Your task to perform on an android device: Open Android settings Image 0: 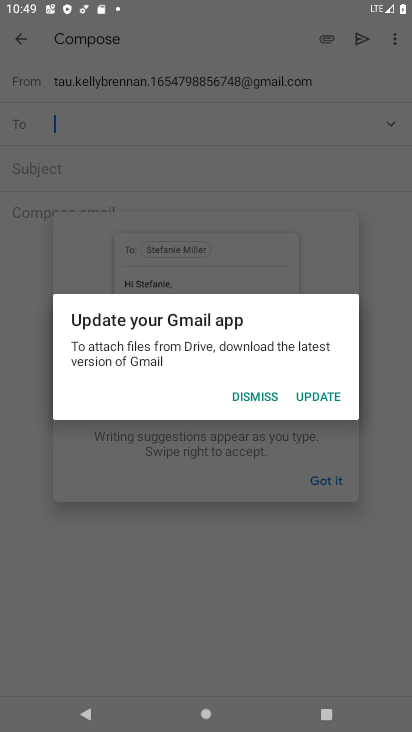
Step 0: press home button
Your task to perform on an android device: Open Android settings Image 1: 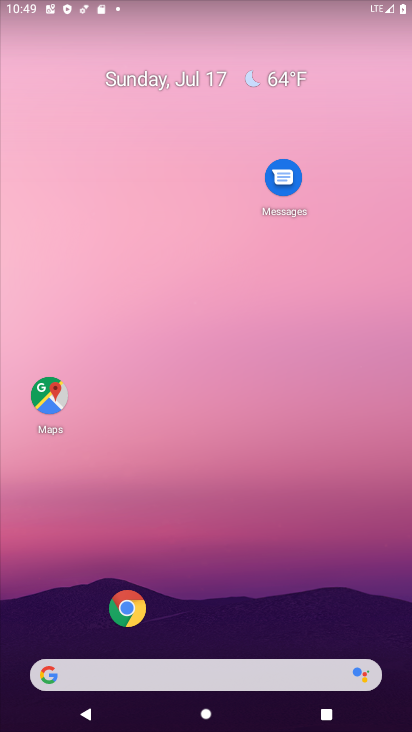
Step 1: drag from (50, 683) to (310, 148)
Your task to perform on an android device: Open Android settings Image 2: 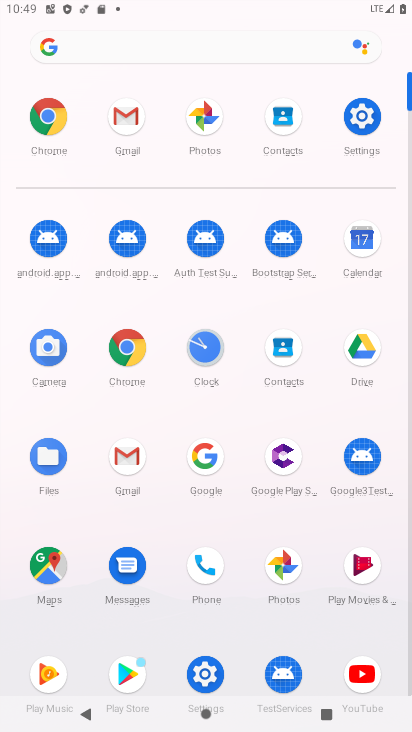
Step 2: click (212, 682)
Your task to perform on an android device: Open Android settings Image 3: 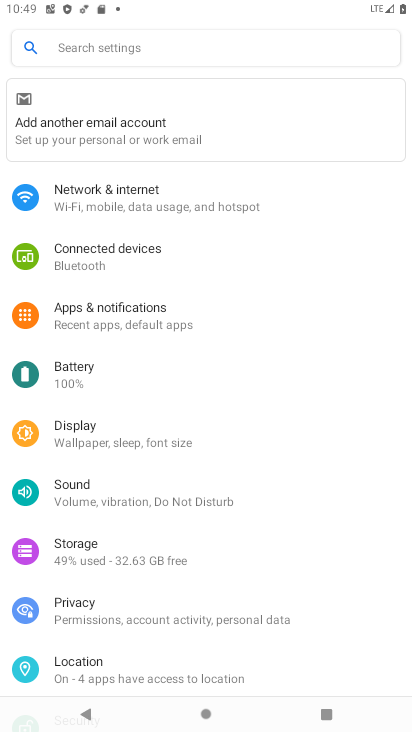
Step 3: drag from (337, 633) to (390, 186)
Your task to perform on an android device: Open Android settings Image 4: 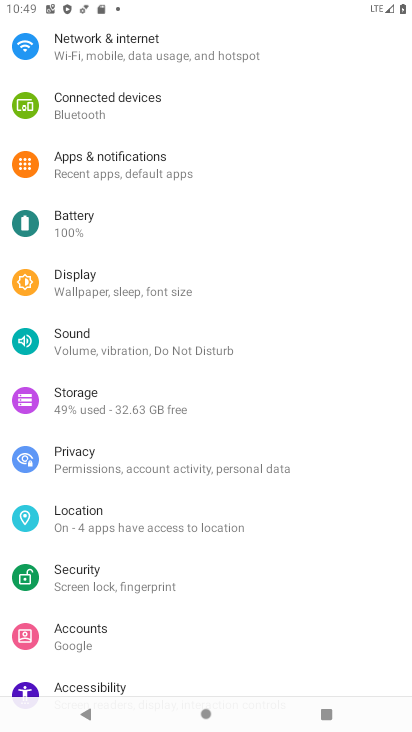
Step 4: drag from (373, 536) to (394, 289)
Your task to perform on an android device: Open Android settings Image 5: 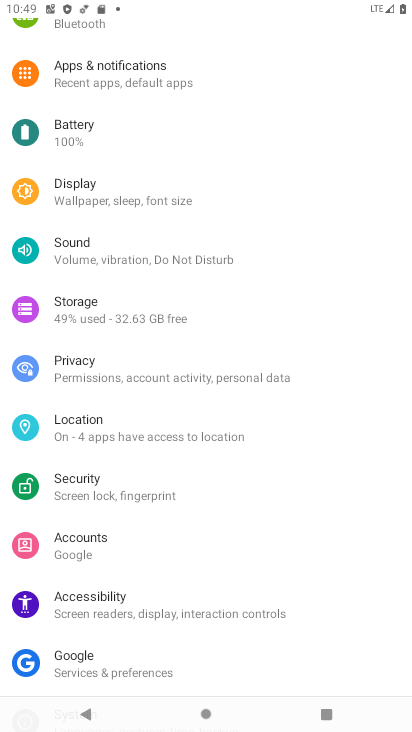
Step 5: drag from (308, 657) to (385, 158)
Your task to perform on an android device: Open Android settings Image 6: 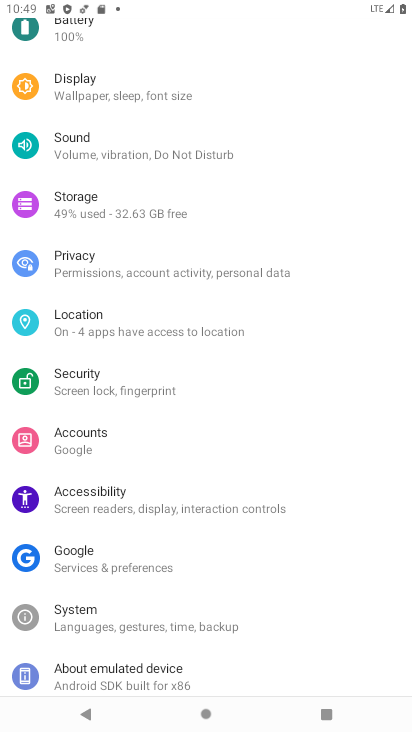
Step 6: click (70, 679)
Your task to perform on an android device: Open Android settings Image 7: 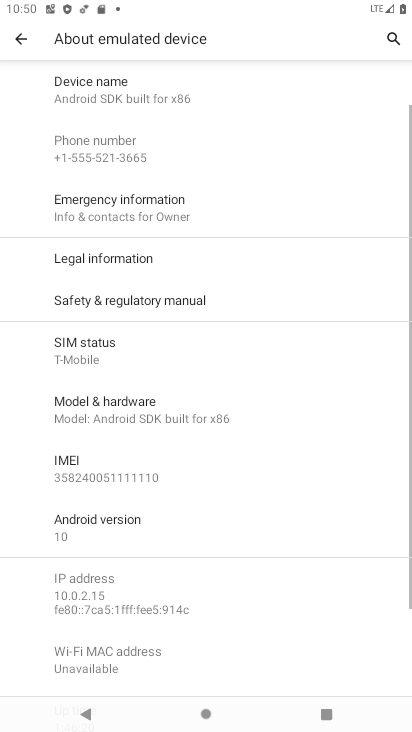
Step 7: drag from (262, 149) to (266, 664)
Your task to perform on an android device: Open Android settings Image 8: 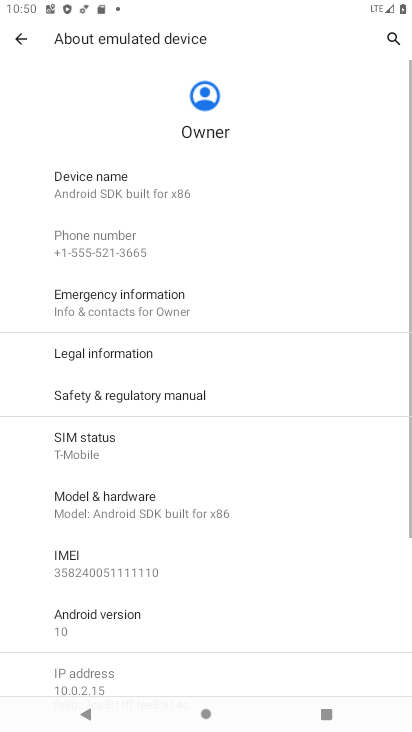
Step 8: drag from (234, 558) to (300, 301)
Your task to perform on an android device: Open Android settings Image 9: 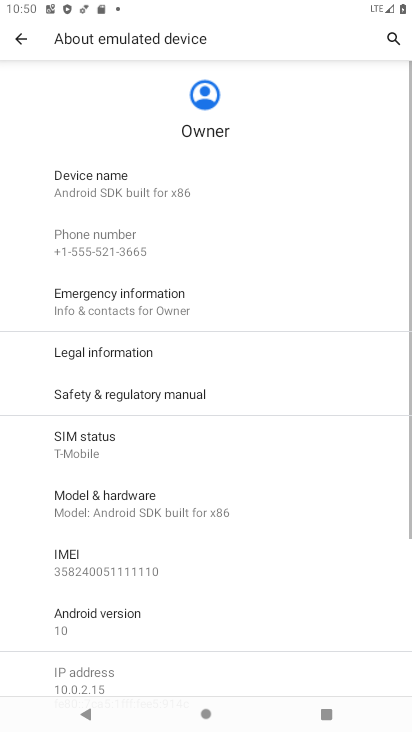
Step 9: click (105, 623)
Your task to perform on an android device: Open Android settings Image 10: 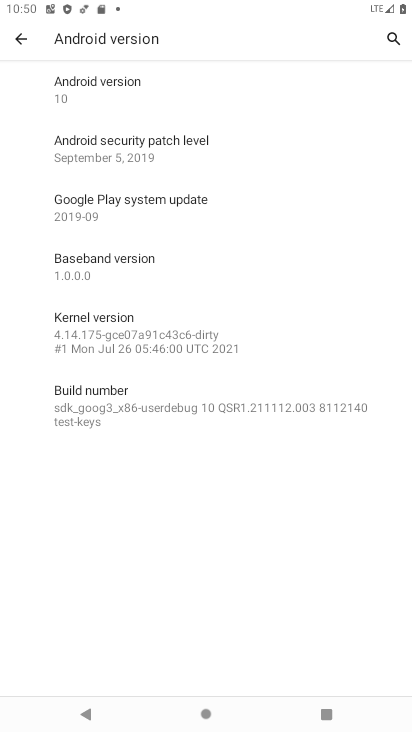
Step 10: task complete